Your task to perform on an android device: Open Android settings Image 0: 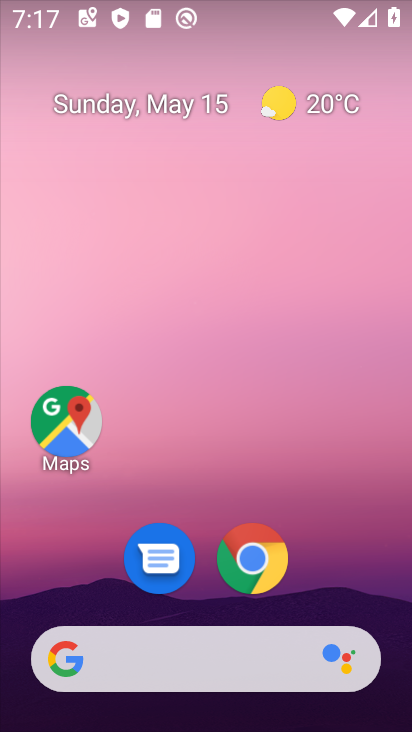
Step 0: drag from (251, 482) to (260, 26)
Your task to perform on an android device: Open Android settings Image 1: 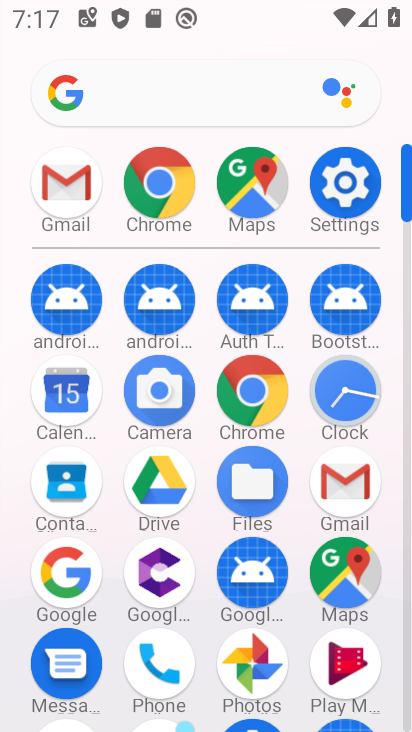
Step 1: click (335, 178)
Your task to perform on an android device: Open Android settings Image 2: 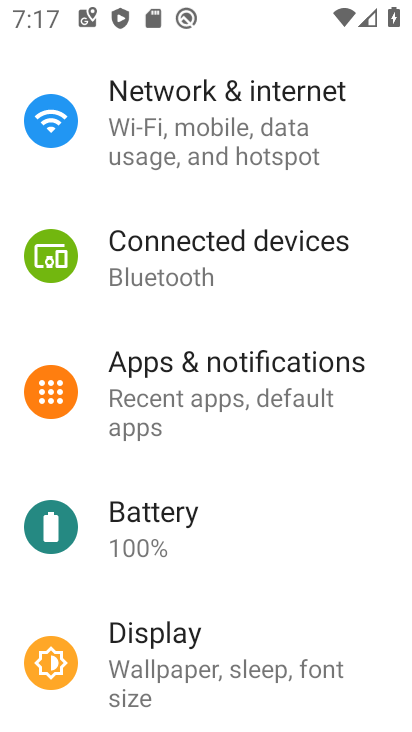
Step 2: task complete